Your task to perform on an android device: turn off javascript in the chrome app Image 0: 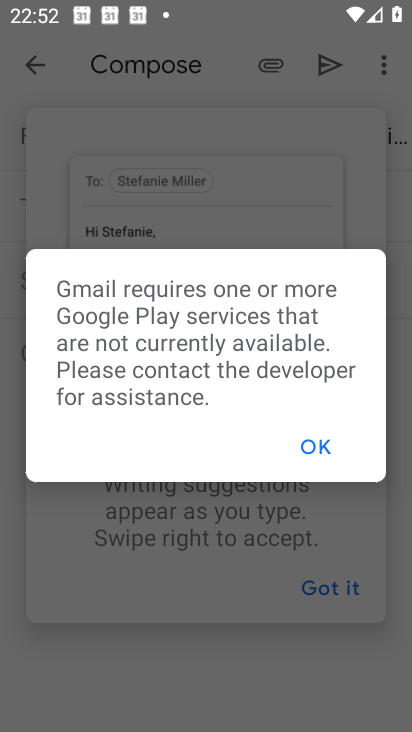
Step 0: press home button
Your task to perform on an android device: turn off javascript in the chrome app Image 1: 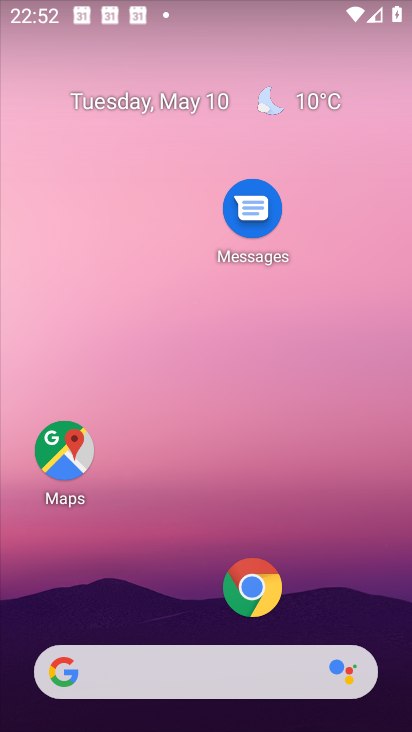
Step 1: click (261, 587)
Your task to perform on an android device: turn off javascript in the chrome app Image 2: 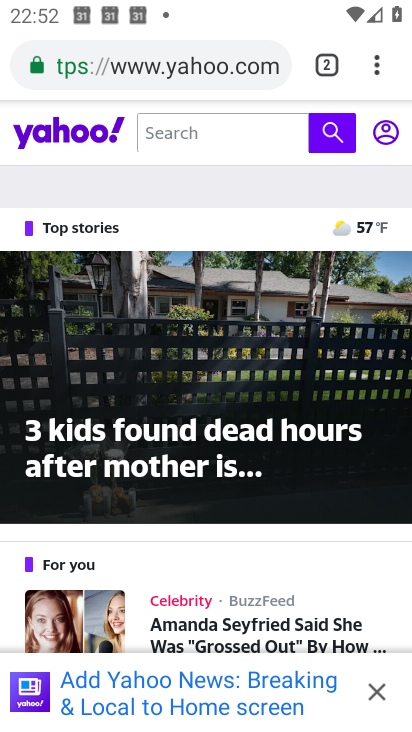
Step 2: click (384, 75)
Your task to perform on an android device: turn off javascript in the chrome app Image 3: 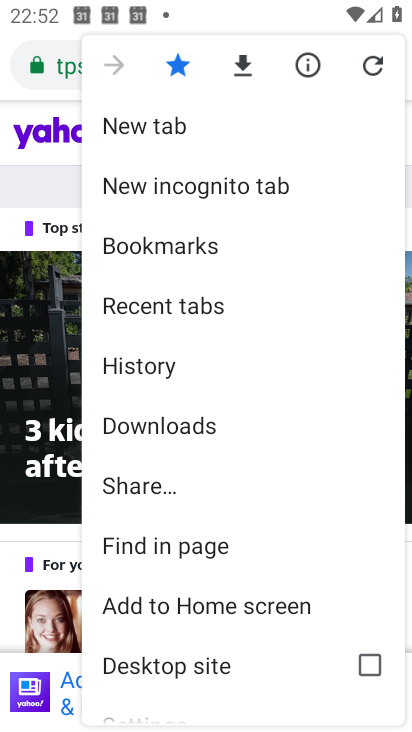
Step 3: drag from (171, 592) to (247, 260)
Your task to perform on an android device: turn off javascript in the chrome app Image 4: 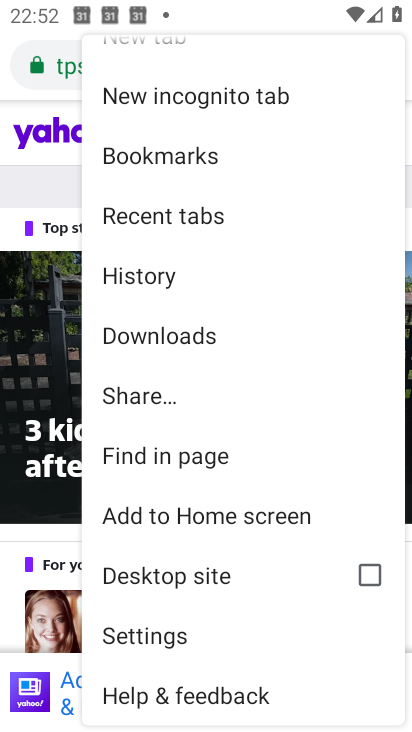
Step 4: click (173, 640)
Your task to perform on an android device: turn off javascript in the chrome app Image 5: 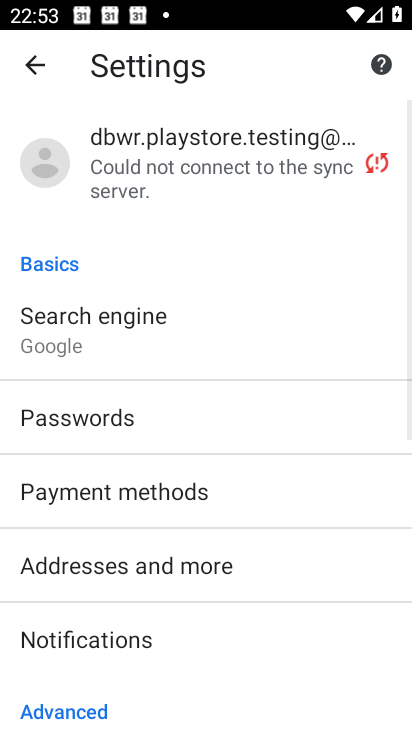
Step 5: drag from (182, 577) to (272, 314)
Your task to perform on an android device: turn off javascript in the chrome app Image 6: 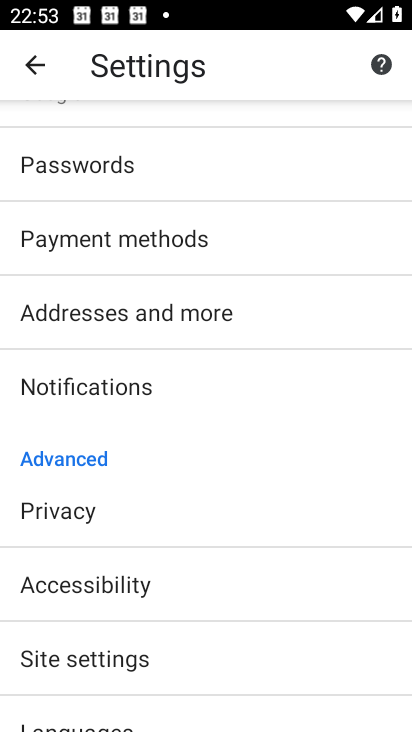
Step 6: drag from (181, 594) to (255, 341)
Your task to perform on an android device: turn off javascript in the chrome app Image 7: 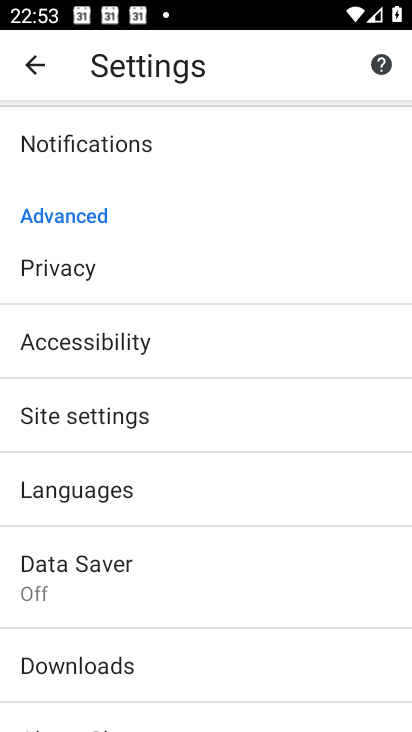
Step 7: click (169, 415)
Your task to perform on an android device: turn off javascript in the chrome app Image 8: 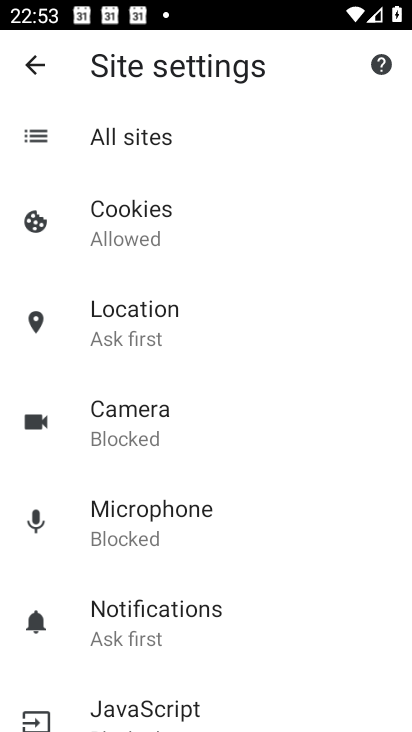
Step 8: drag from (159, 584) to (201, 383)
Your task to perform on an android device: turn off javascript in the chrome app Image 9: 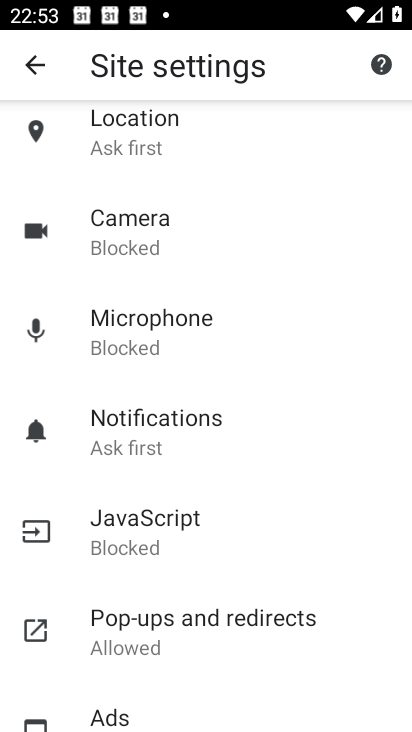
Step 9: click (168, 546)
Your task to perform on an android device: turn off javascript in the chrome app Image 10: 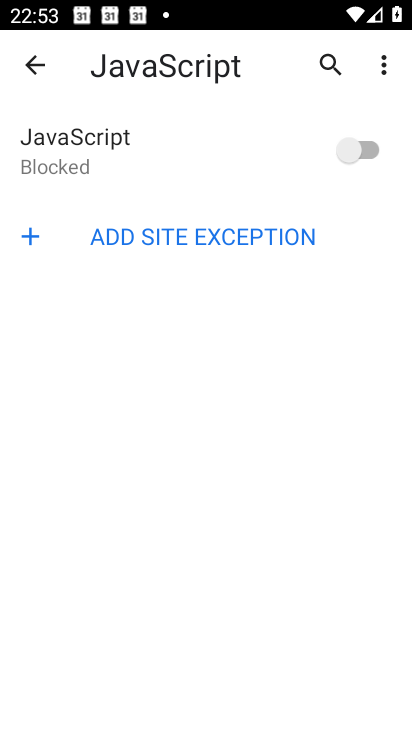
Step 10: task complete